Your task to perform on an android device: turn pop-ups off in chrome Image 0: 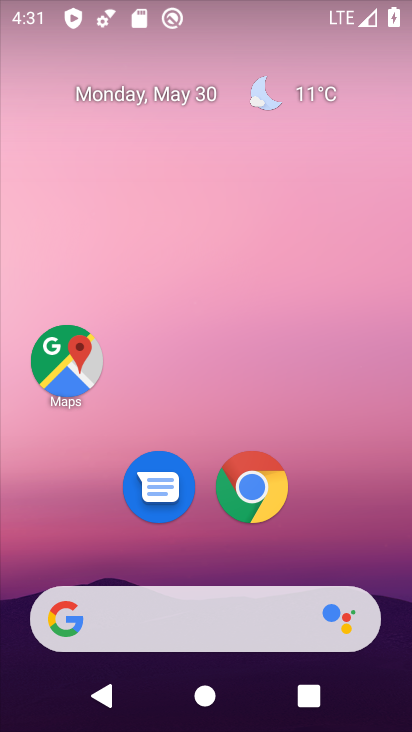
Step 0: click (253, 486)
Your task to perform on an android device: turn pop-ups off in chrome Image 1: 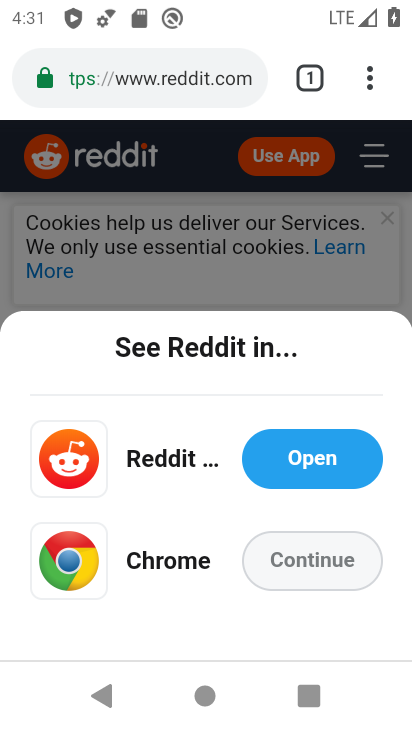
Step 1: click (364, 79)
Your task to perform on an android device: turn pop-ups off in chrome Image 2: 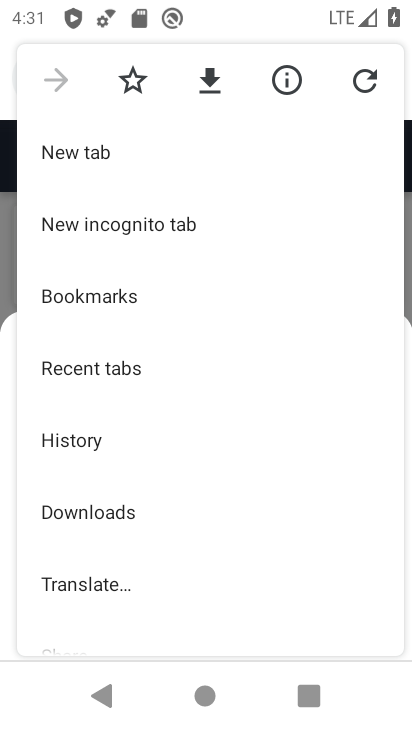
Step 2: drag from (206, 518) to (205, 215)
Your task to perform on an android device: turn pop-ups off in chrome Image 3: 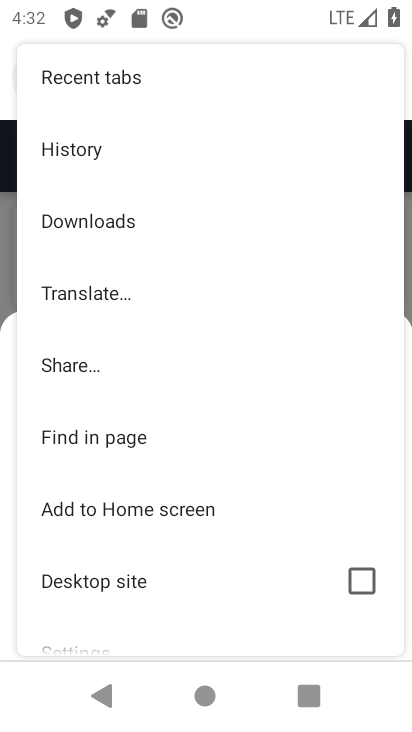
Step 3: drag from (236, 600) to (213, 177)
Your task to perform on an android device: turn pop-ups off in chrome Image 4: 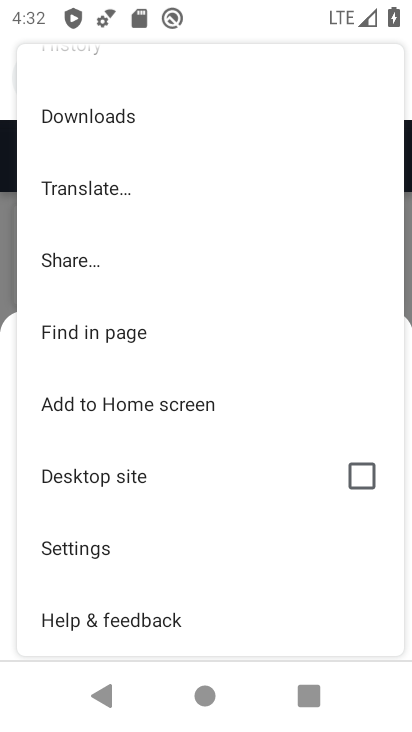
Step 4: click (92, 538)
Your task to perform on an android device: turn pop-ups off in chrome Image 5: 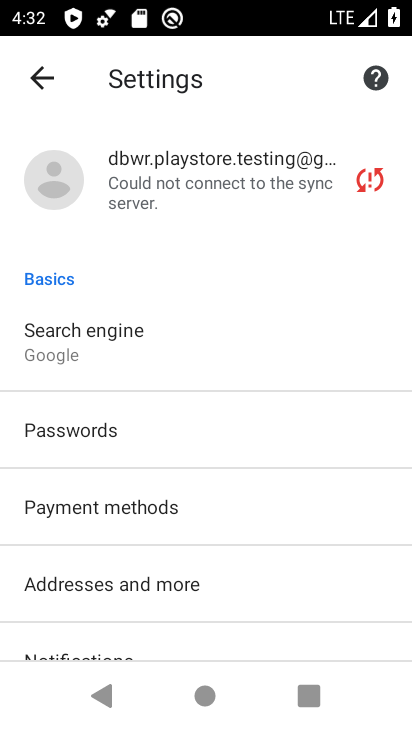
Step 5: drag from (244, 594) to (227, 122)
Your task to perform on an android device: turn pop-ups off in chrome Image 6: 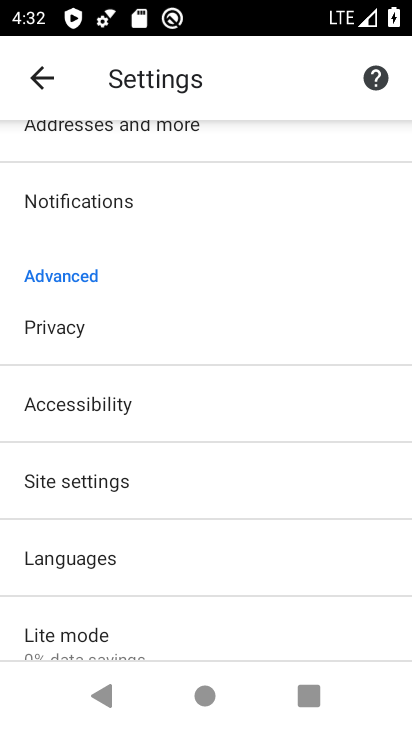
Step 6: click (82, 478)
Your task to perform on an android device: turn pop-ups off in chrome Image 7: 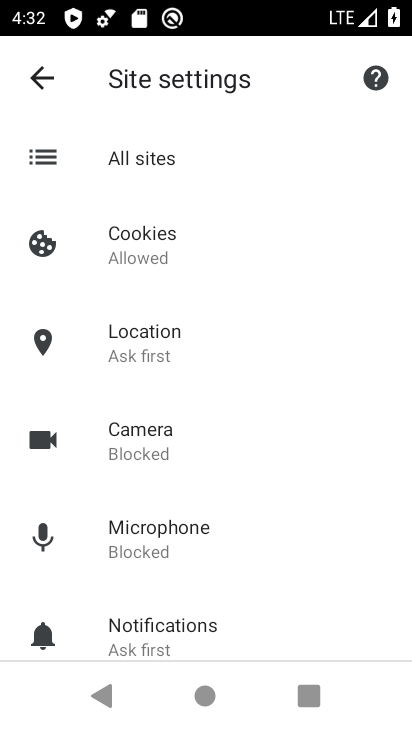
Step 7: drag from (294, 614) to (292, 153)
Your task to perform on an android device: turn pop-ups off in chrome Image 8: 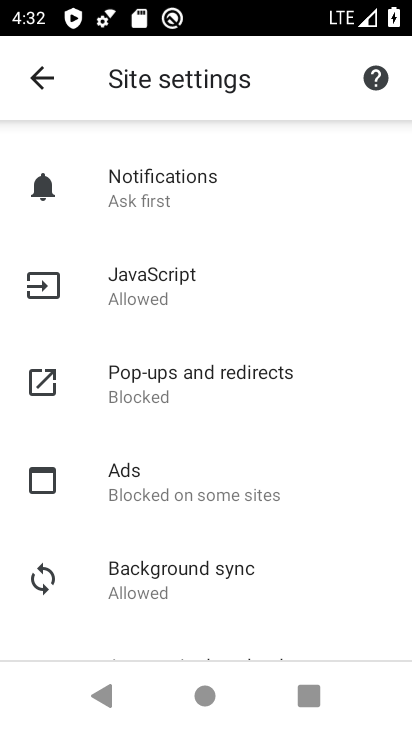
Step 8: click (164, 381)
Your task to perform on an android device: turn pop-ups off in chrome Image 9: 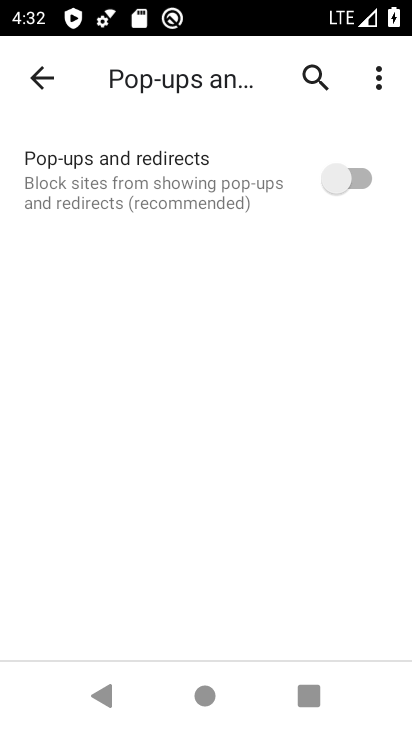
Step 9: task complete